Your task to perform on an android device: delete the emails in spam in the gmail app Image 0: 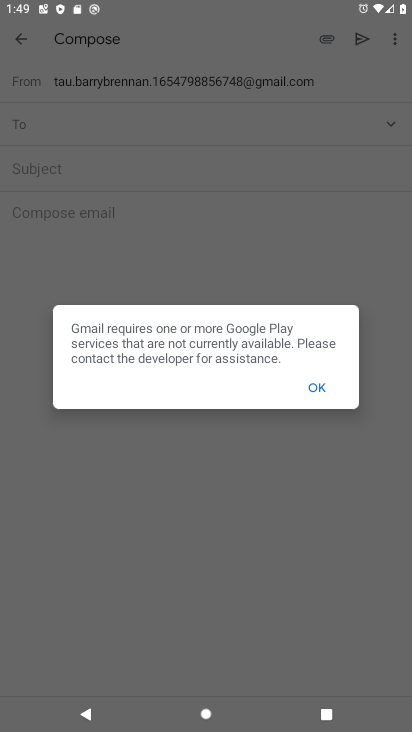
Step 0: press home button
Your task to perform on an android device: delete the emails in spam in the gmail app Image 1: 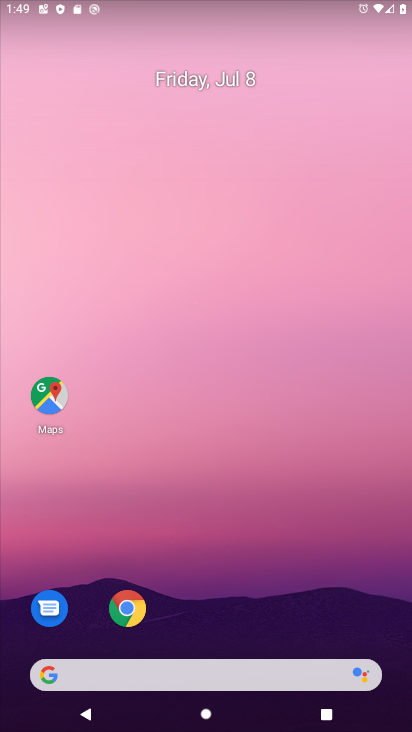
Step 1: drag from (154, 630) to (218, 87)
Your task to perform on an android device: delete the emails in spam in the gmail app Image 2: 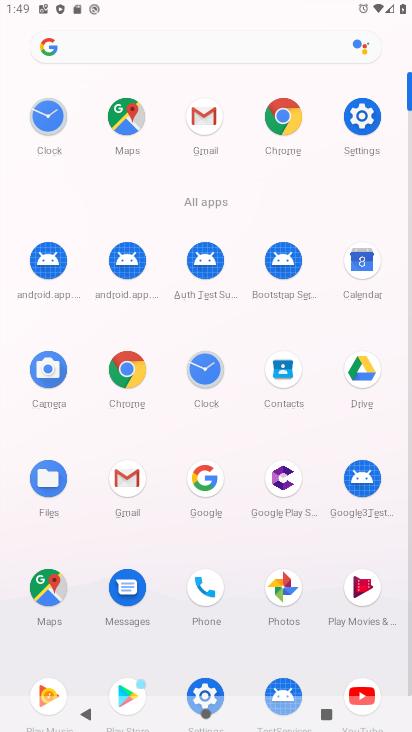
Step 2: click (204, 116)
Your task to perform on an android device: delete the emails in spam in the gmail app Image 3: 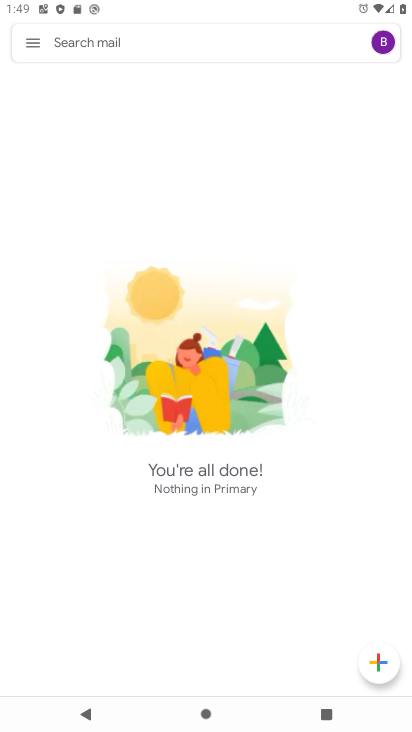
Step 3: click (34, 54)
Your task to perform on an android device: delete the emails in spam in the gmail app Image 4: 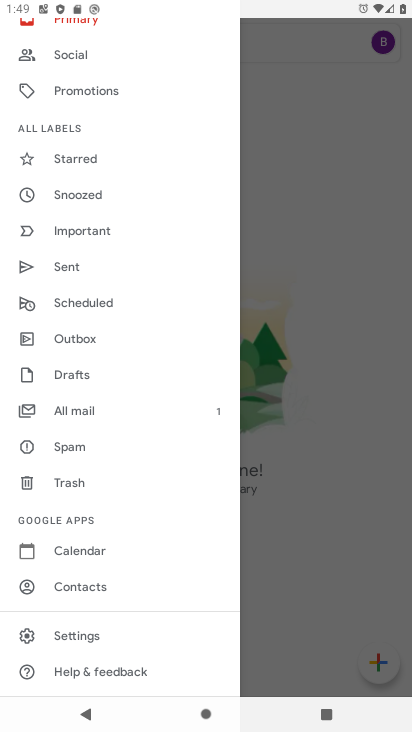
Step 4: click (79, 455)
Your task to perform on an android device: delete the emails in spam in the gmail app Image 5: 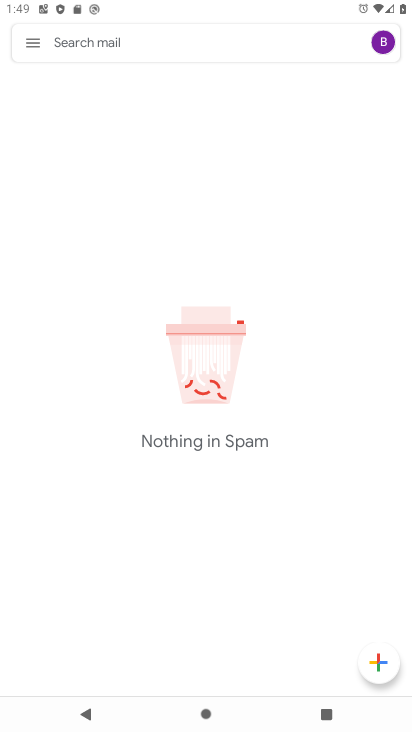
Step 5: task complete